Your task to perform on an android device: turn off data saver in the chrome app Image 0: 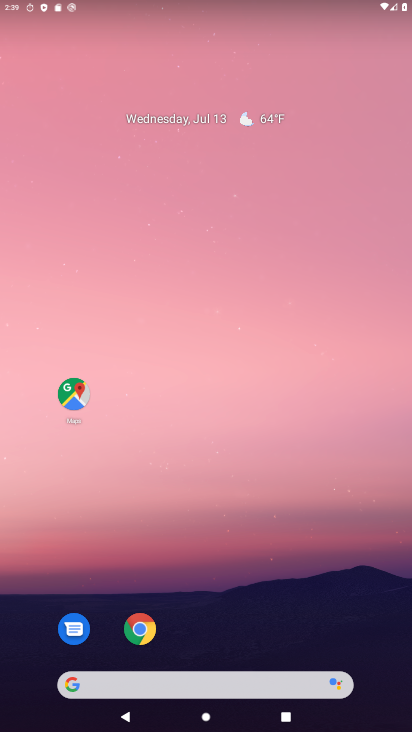
Step 0: drag from (154, 677) to (204, 9)
Your task to perform on an android device: turn off data saver in the chrome app Image 1: 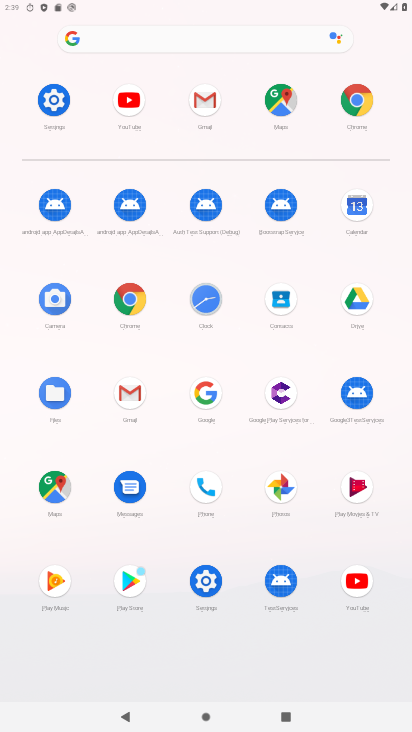
Step 1: click (130, 288)
Your task to perform on an android device: turn off data saver in the chrome app Image 2: 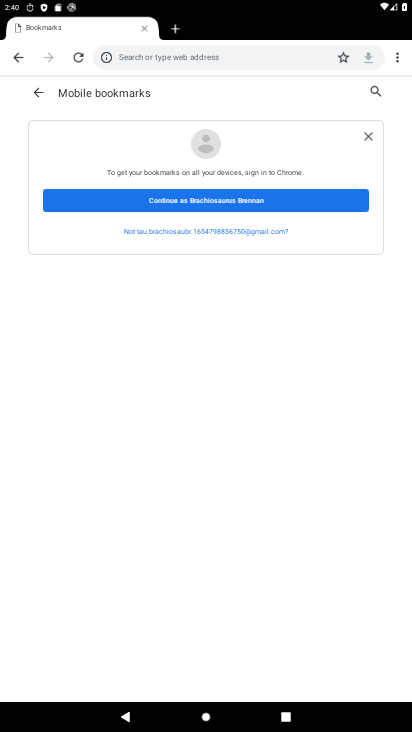
Step 2: drag from (399, 44) to (299, 265)
Your task to perform on an android device: turn off data saver in the chrome app Image 3: 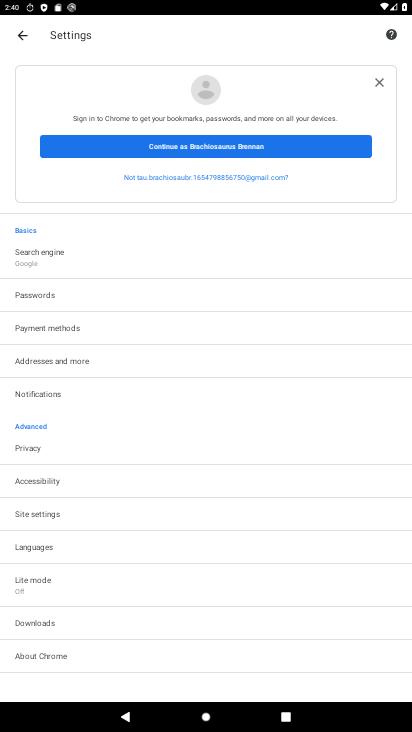
Step 3: drag from (160, 582) to (179, 273)
Your task to perform on an android device: turn off data saver in the chrome app Image 4: 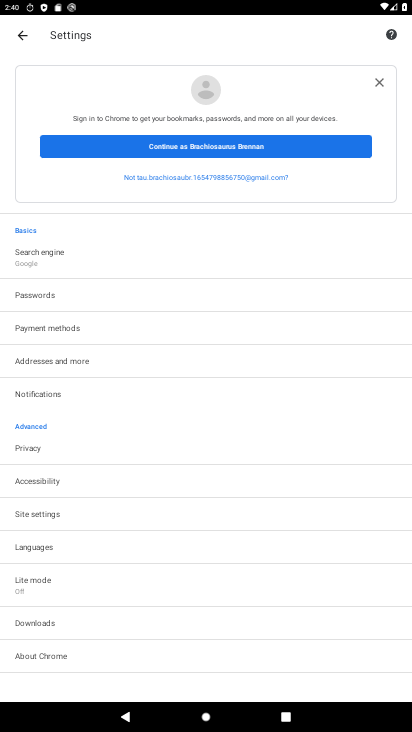
Step 4: click (61, 588)
Your task to perform on an android device: turn off data saver in the chrome app Image 5: 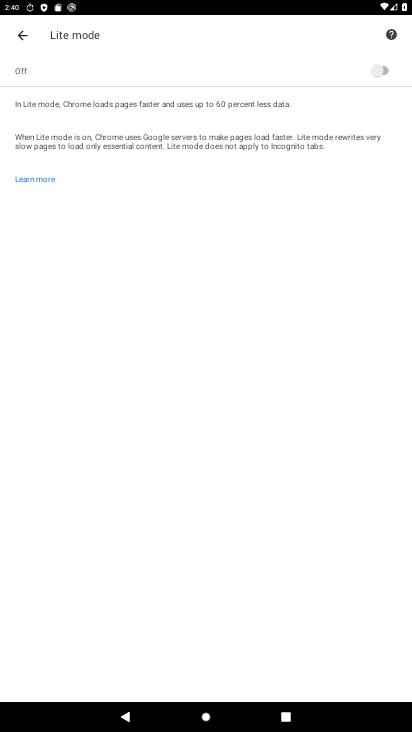
Step 5: task complete